Your task to perform on an android device: Open CNN.com Image 0: 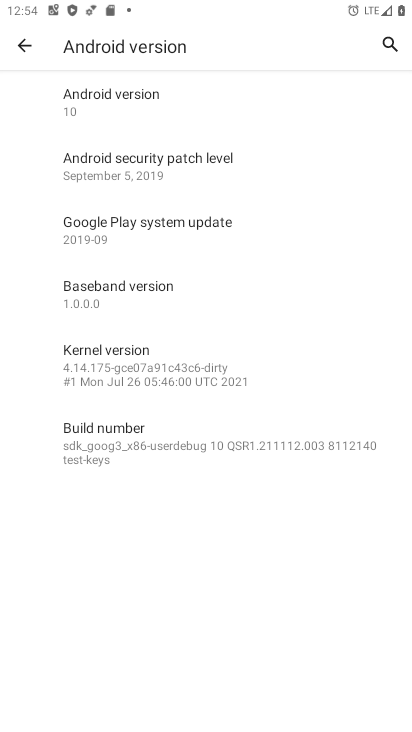
Step 0: press home button
Your task to perform on an android device: Open CNN.com Image 1: 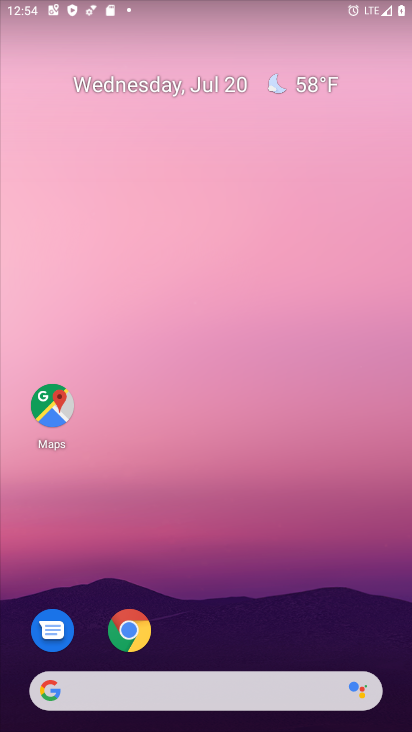
Step 1: click (136, 636)
Your task to perform on an android device: Open CNN.com Image 2: 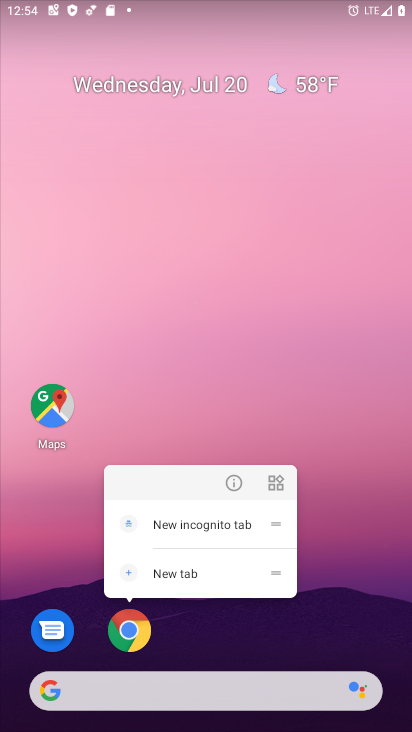
Step 2: click (151, 281)
Your task to perform on an android device: Open CNN.com Image 3: 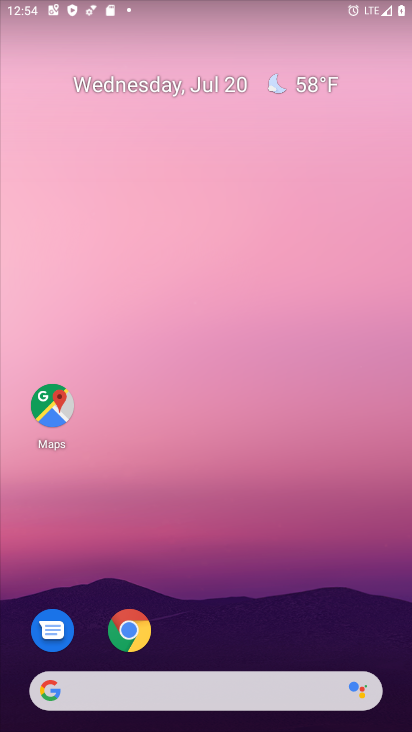
Step 3: click (133, 623)
Your task to perform on an android device: Open CNN.com Image 4: 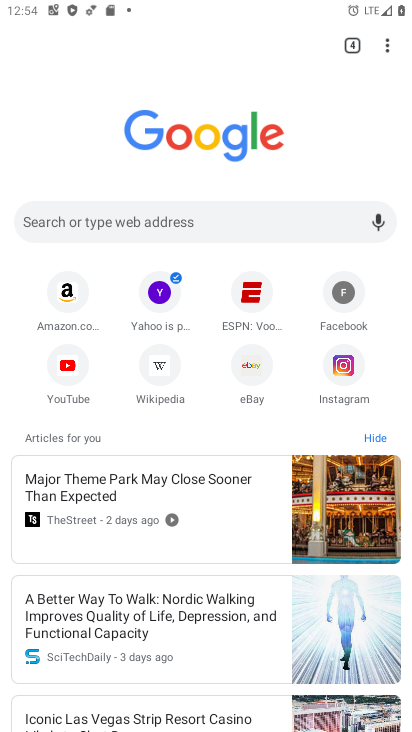
Step 4: click (215, 235)
Your task to perform on an android device: Open CNN.com Image 5: 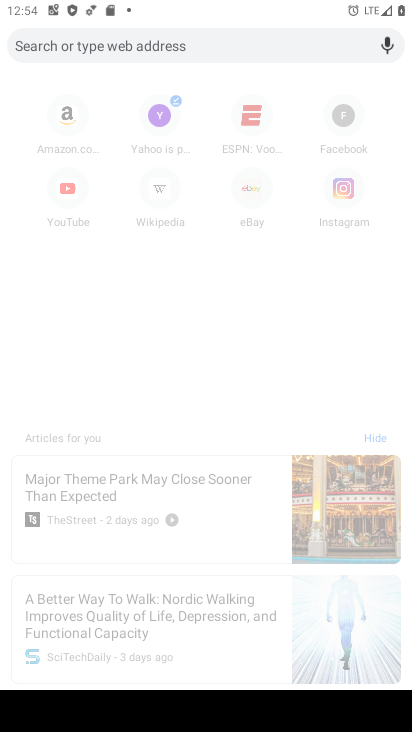
Step 5: type "cnn"
Your task to perform on an android device: Open CNN.com Image 6: 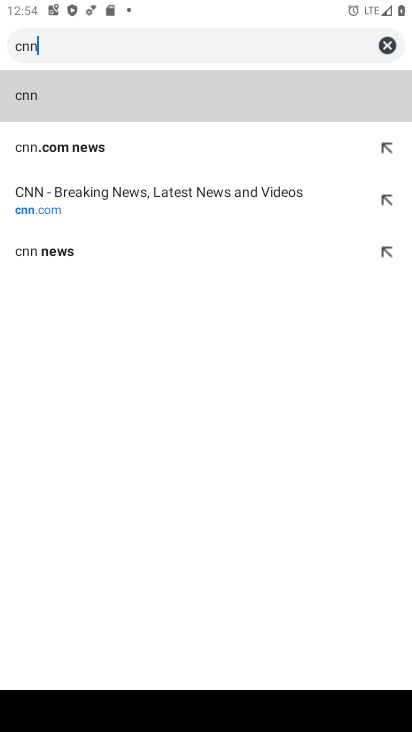
Step 6: click (173, 215)
Your task to perform on an android device: Open CNN.com Image 7: 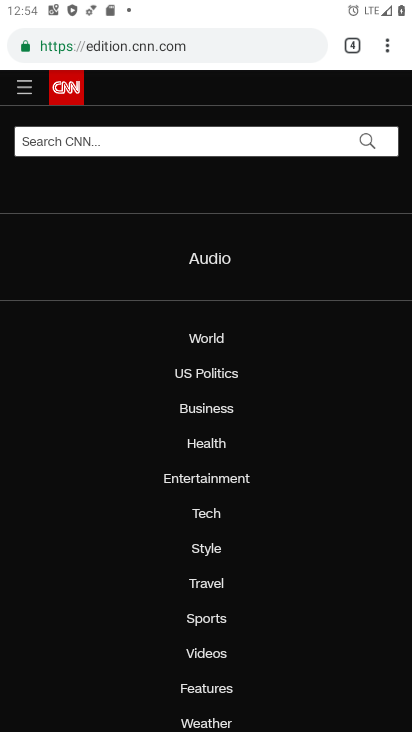
Step 7: task complete